Your task to perform on an android device: empty trash in the gmail app Image 0: 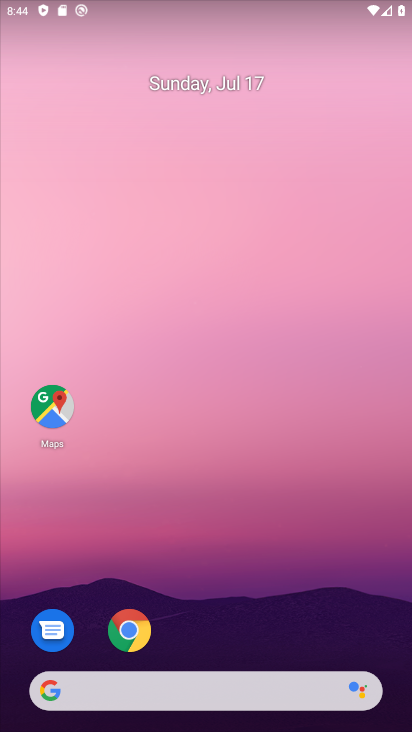
Step 0: drag from (292, 626) to (274, 244)
Your task to perform on an android device: empty trash in the gmail app Image 1: 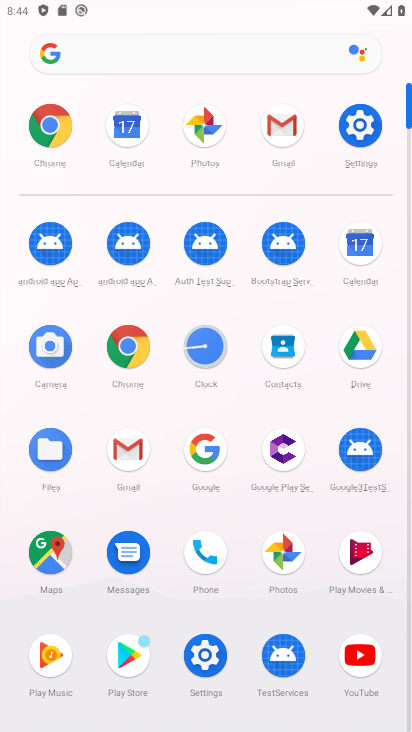
Step 1: click (270, 144)
Your task to perform on an android device: empty trash in the gmail app Image 2: 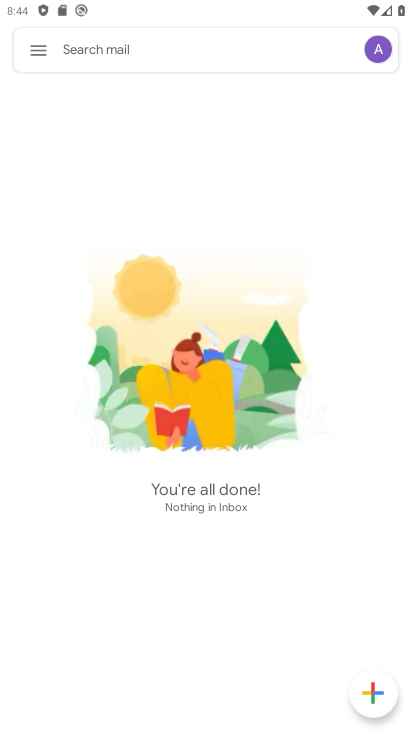
Step 2: click (34, 54)
Your task to perform on an android device: empty trash in the gmail app Image 3: 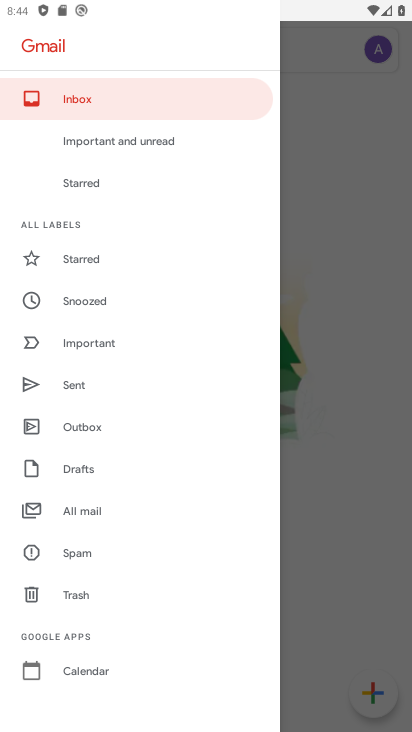
Step 3: click (66, 594)
Your task to perform on an android device: empty trash in the gmail app Image 4: 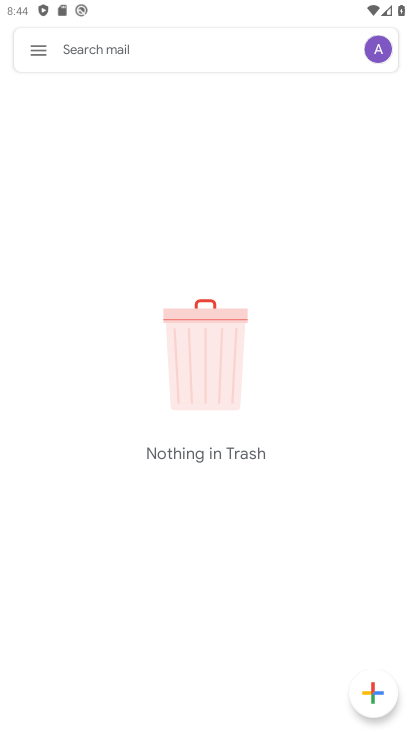
Step 4: task complete